Your task to perform on an android device: toggle notification dots Image 0: 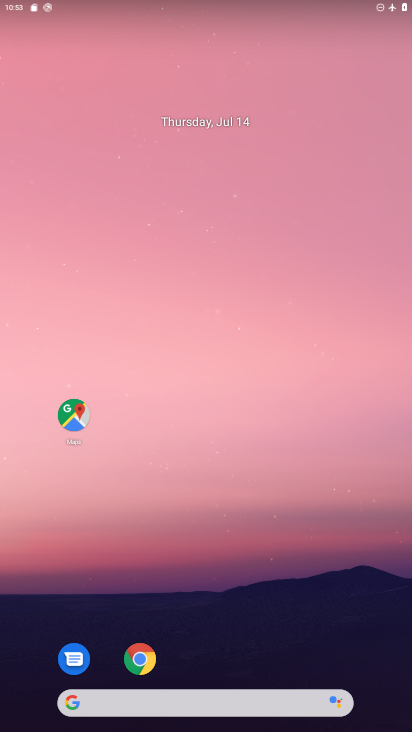
Step 0: drag from (313, 583) to (239, 100)
Your task to perform on an android device: toggle notification dots Image 1: 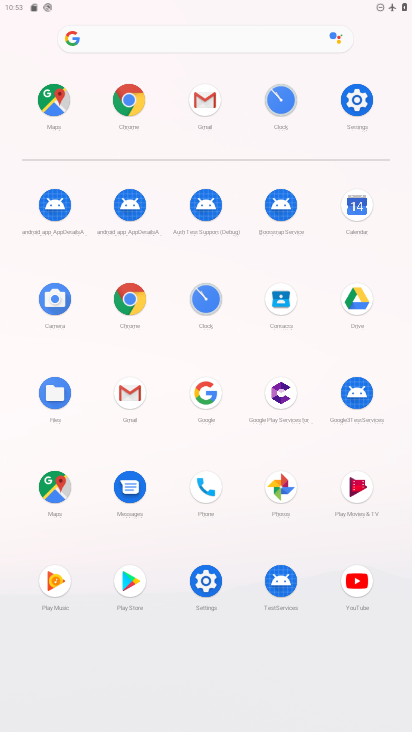
Step 1: click (363, 98)
Your task to perform on an android device: toggle notification dots Image 2: 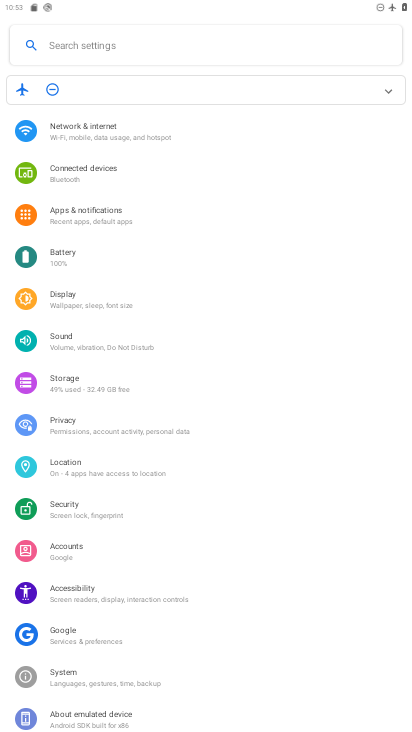
Step 2: click (79, 204)
Your task to perform on an android device: toggle notification dots Image 3: 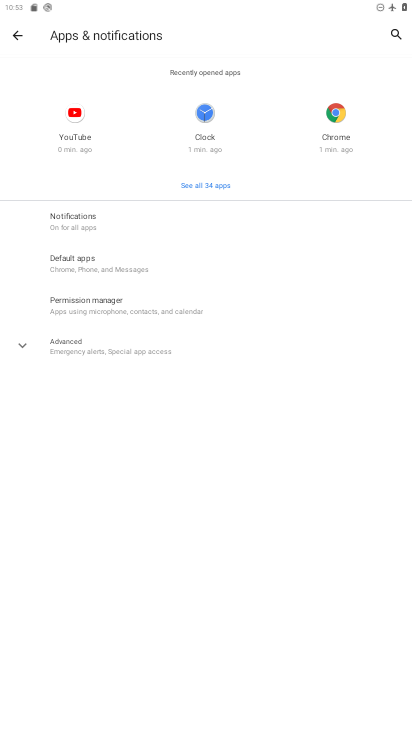
Step 3: click (76, 218)
Your task to perform on an android device: toggle notification dots Image 4: 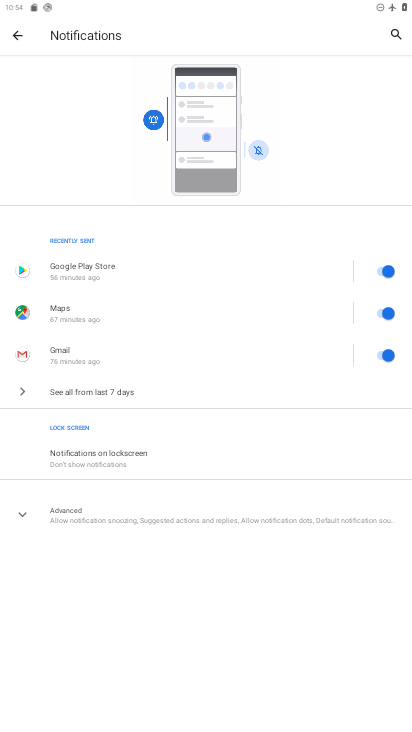
Step 4: click (131, 529)
Your task to perform on an android device: toggle notification dots Image 5: 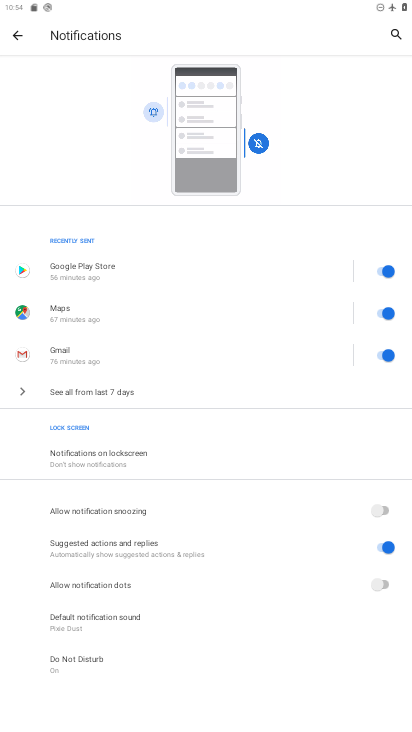
Step 5: click (380, 586)
Your task to perform on an android device: toggle notification dots Image 6: 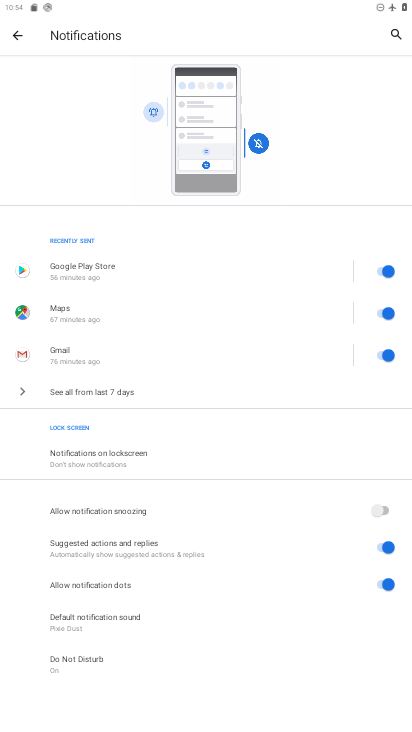
Step 6: task complete